Your task to perform on an android device: toggle pop-ups in chrome Image 0: 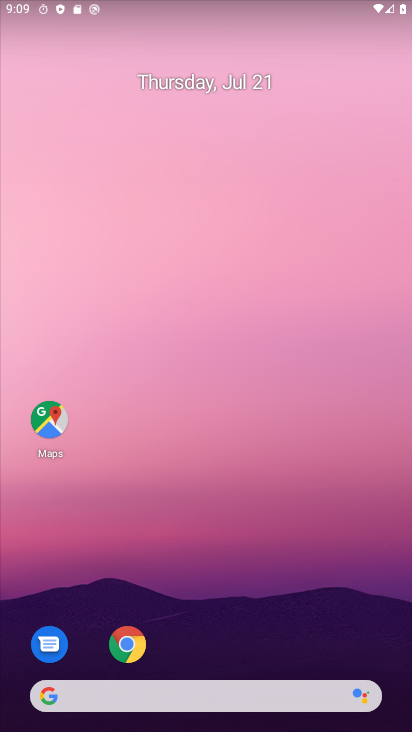
Step 0: drag from (263, 587) to (237, 241)
Your task to perform on an android device: toggle pop-ups in chrome Image 1: 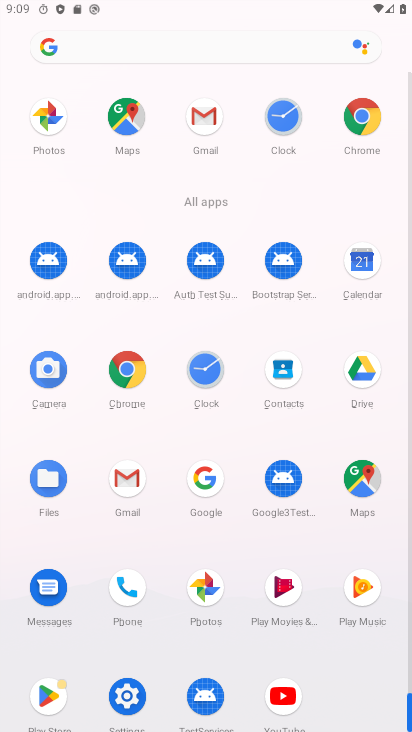
Step 1: click (377, 119)
Your task to perform on an android device: toggle pop-ups in chrome Image 2: 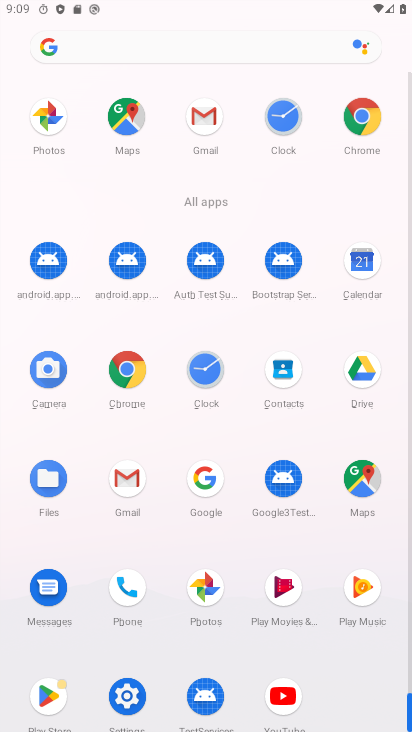
Step 2: click (377, 117)
Your task to perform on an android device: toggle pop-ups in chrome Image 3: 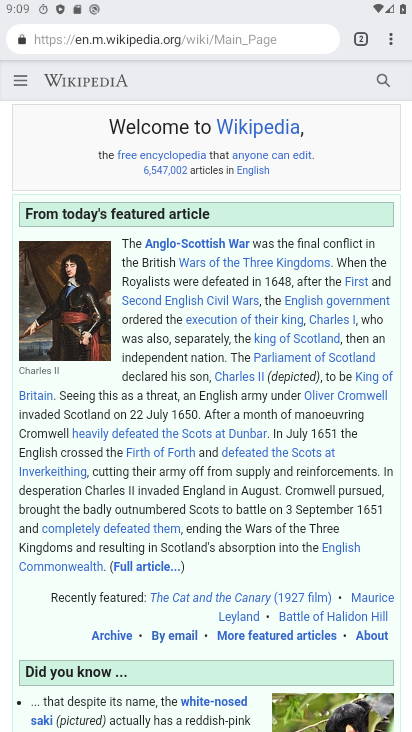
Step 3: drag from (381, 41) to (243, 475)
Your task to perform on an android device: toggle pop-ups in chrome Image 4: 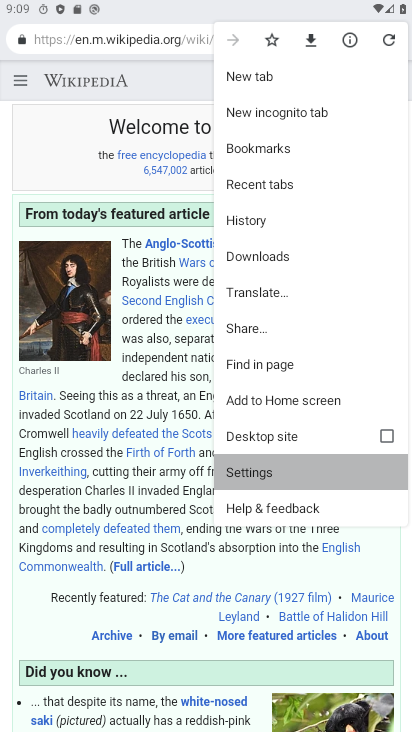
Step 4: click (253, 473)
Your task to perform on an android device: toggle pop-ups in chrome Image 5: 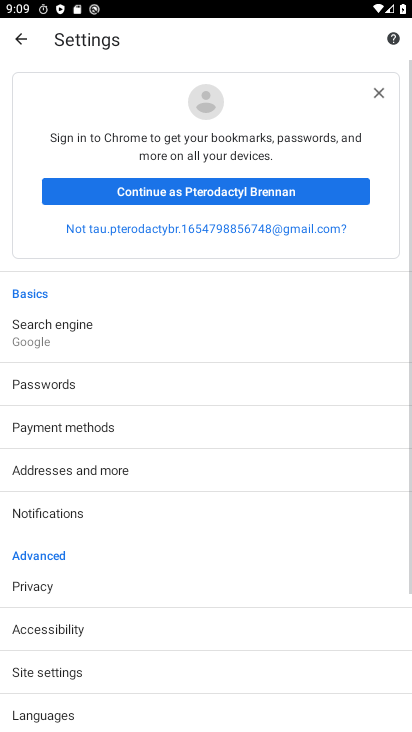
Step 5: drag from (46, 588) to (70, 109)
Your task to perform on an android device: toggle pop-ups in chrome Image 6: 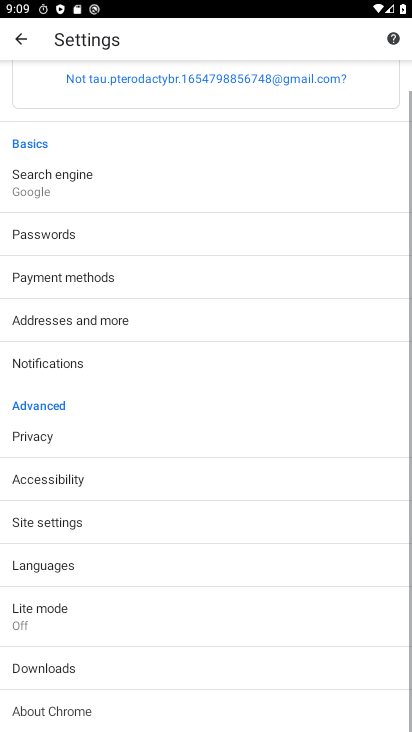
Step 6: drag from (34, 523) to (76, 299)
Your task to perform on an android device: toggle pop-ups in chrome Image 7: 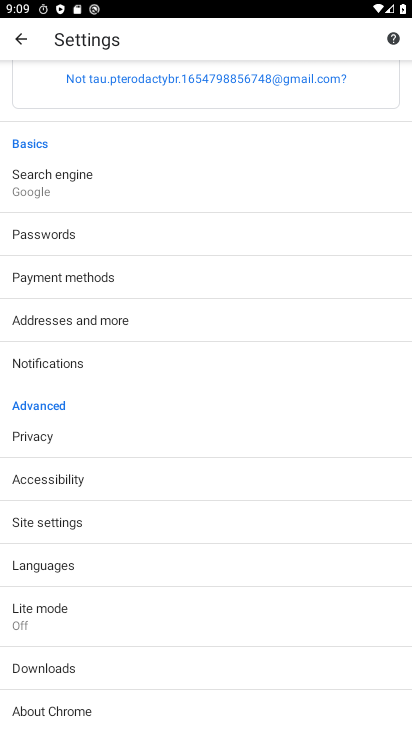
Step 7: click (36, 520)
Your task to perform on an android device: toggle pop-ups in chrome Image 8: 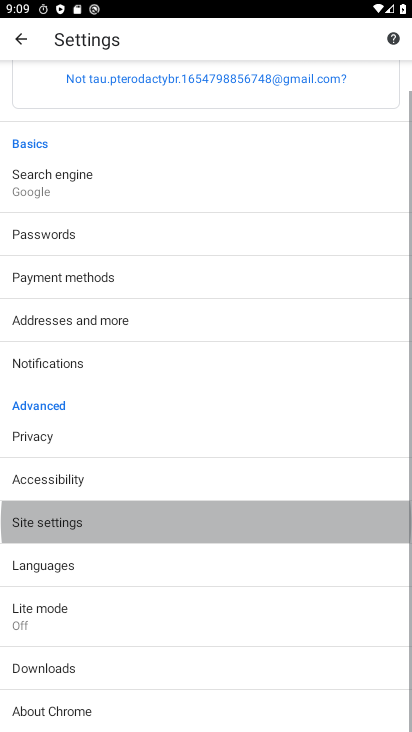
Step 8: click (35, 520)
Your task to perform on an android device: toggle pop-ups in chrome Image 9: 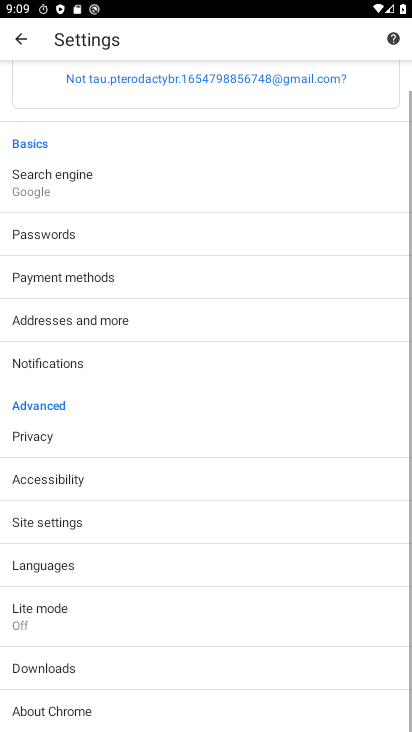
Step 9: click (34, 521)
Your task to perform on an android device: toggle pop-ups in chrome Image 10: 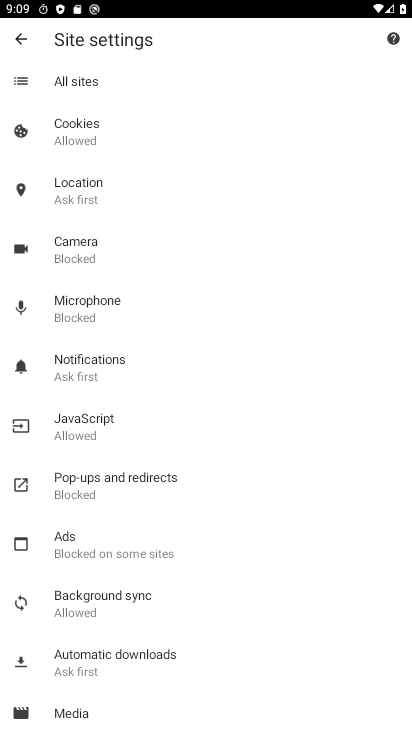
Step 10: click (97, 480)
Your task to perform on an android device: toggle pop-ups in chrome Image 11: 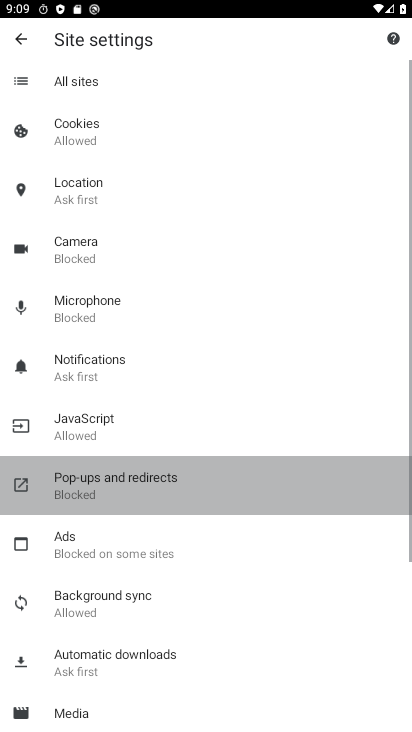
Step 11: click (100, 481)
Your task to perform on an android device: toggle pop-ups in chrome Image 12: 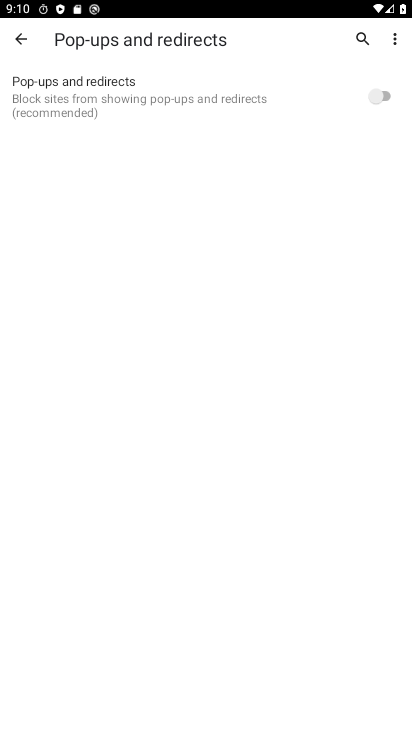
Step 12: click (379, 99)
Your task to perform on an android device: toggle pop-ups in chrome Image 13: 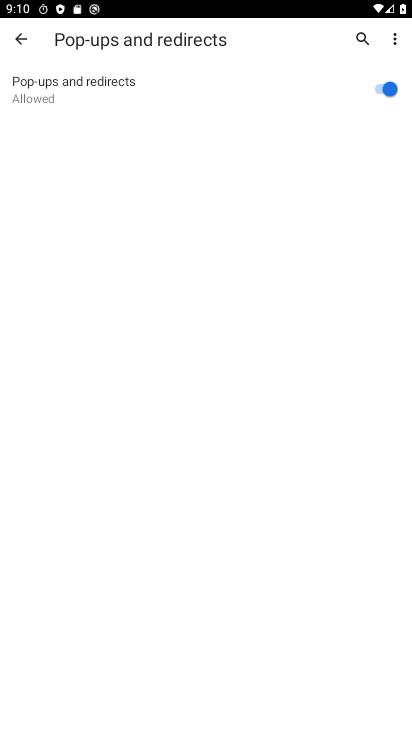
Step 13: task complete